Your task to perform on an android device: Show me popular games on the Play Store Image 0: 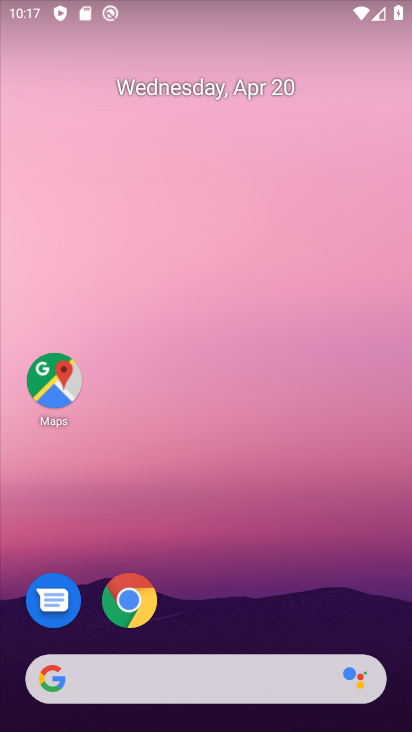
Step 0: drag from (301, 541) to (325, 0)
Your task to perform on an android device: Show me popular games on the Play Store Image 1: 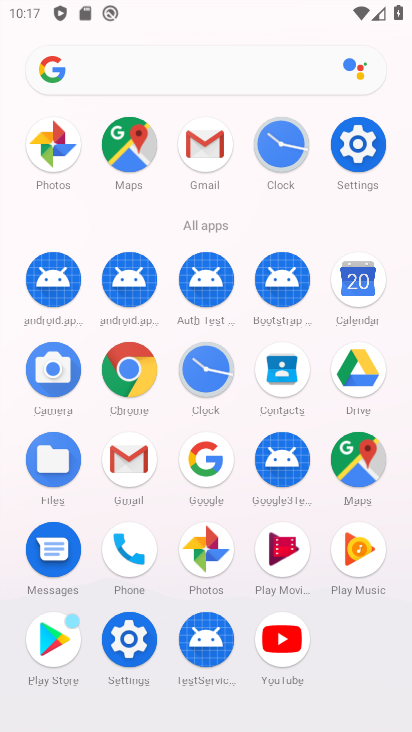
Step 1: click (56, 639)
Your task to perform on an android device: Show me popular games on the Play Store Image 2: 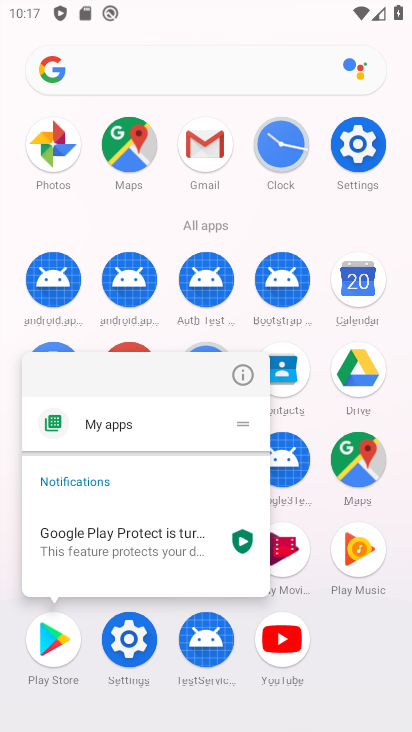
Step 2: click (56, 639)
Your task to perform on an android device: Show me popular games on the Play Store Image 3: 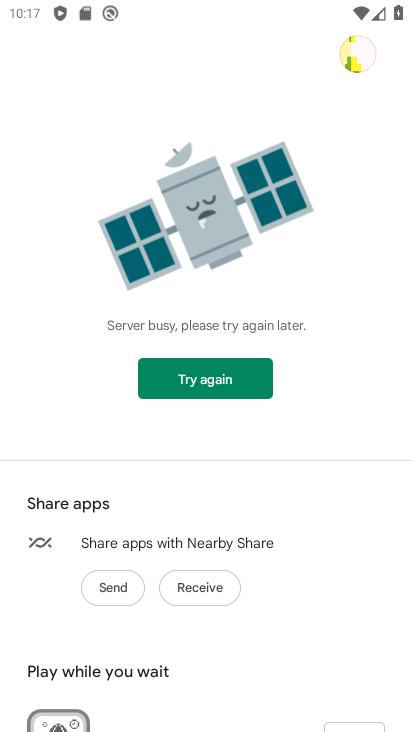
Step 3: click (206, 379)
Your task to perform on an android device: Show me popular games on the Play Store Image 4: 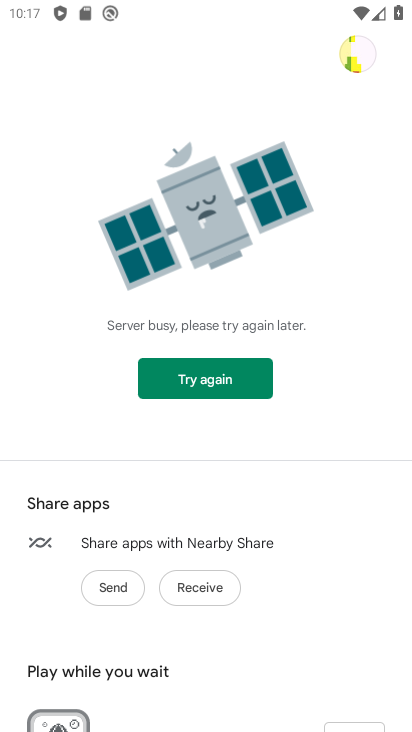
Step 4: click (206, 379)
Your task to perform on an android device: Show me popular games on the Play Store Image 5: 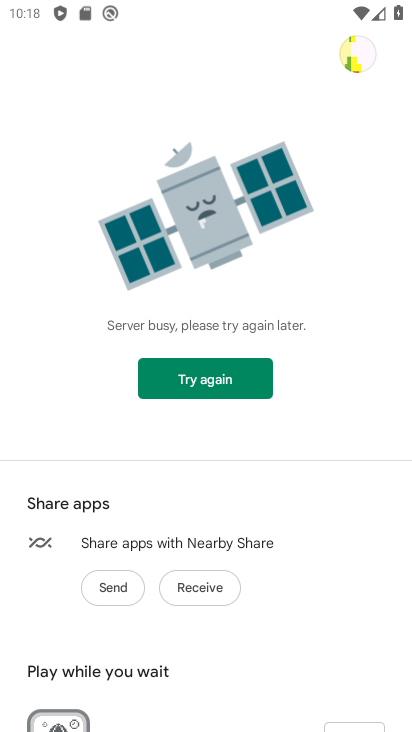
Step 5: click (206, 379)
Your task to perform on an android device: Show me popular games on the Play Store Image 6: 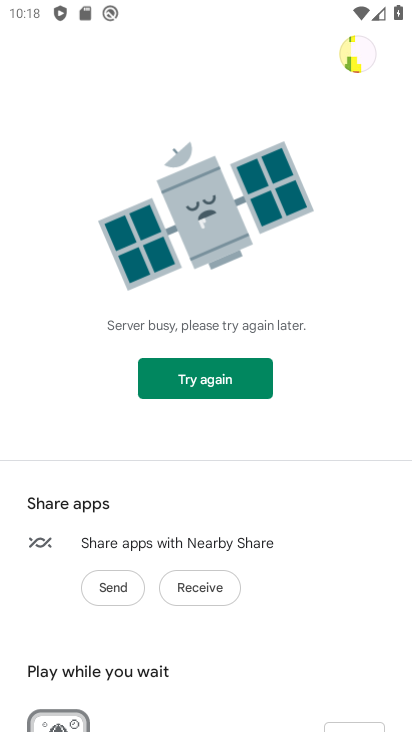
Step 6: click (206, 379)
Your task to perform on an android device: Show me popular games on the Play Store Image 7: 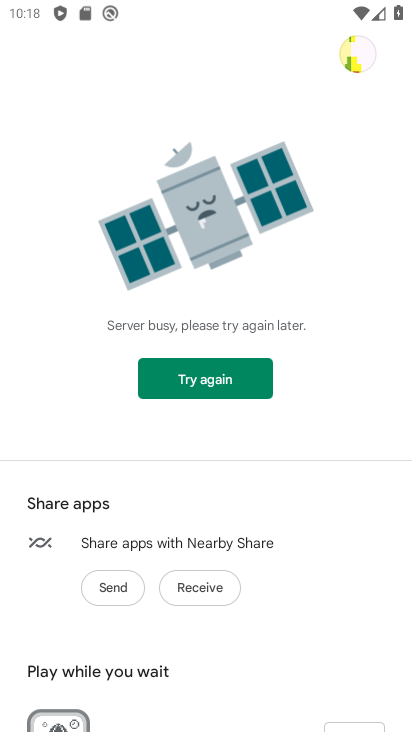
Step 7: task complete